Your task to perform on an android device: search for starred emails in the gmail app Image 0: 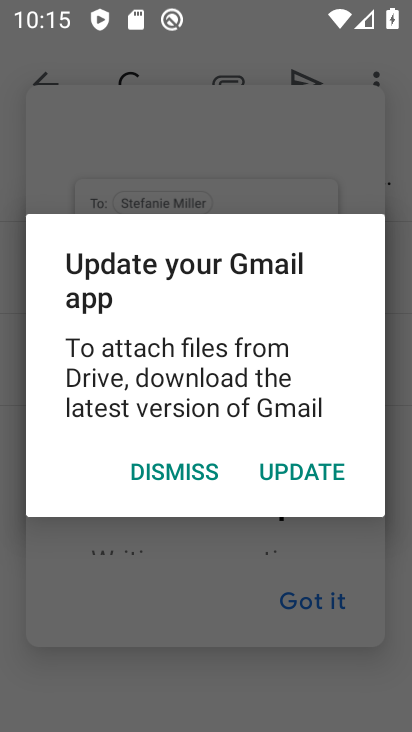
Step 0: click (142, 480)
Your task to perform on an android device: search for starred emails in the gmail app Image 1: 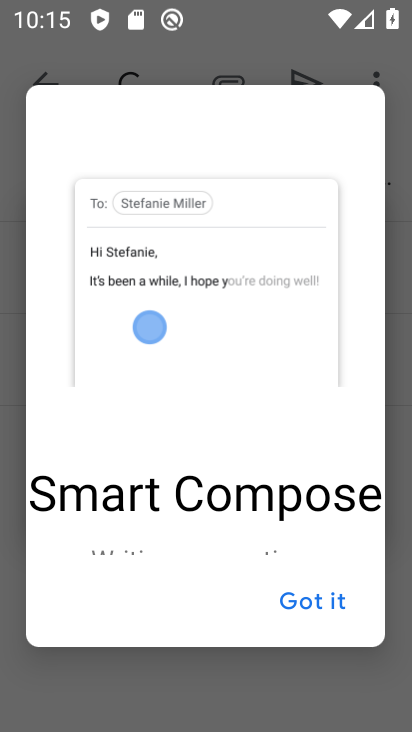
Step 1: click (303, 592)
Your task to perform on an android device: search for starred emails in the gmail app Image 2: 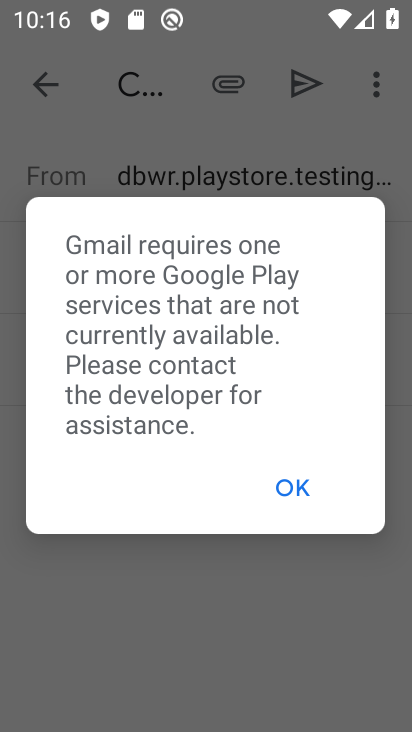
Step 2: press home button
Your task to perform on an android device: search for starred emails in the gmail app Image 3: 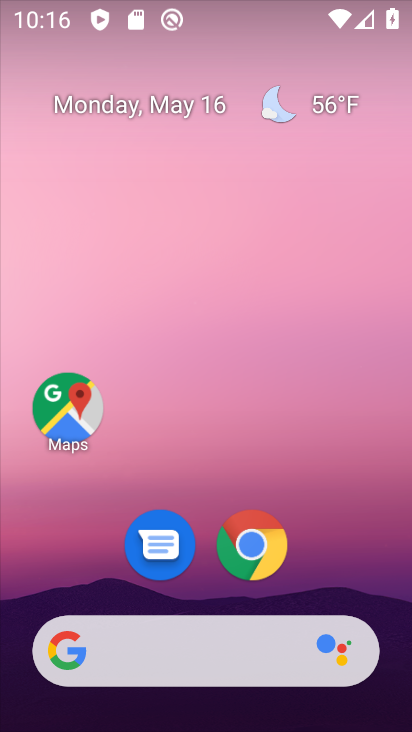
Step 3: drag from (210, 592) to (257, 32)
Your task to perform on an android device: search for starred emails in the gmail app Image 4: 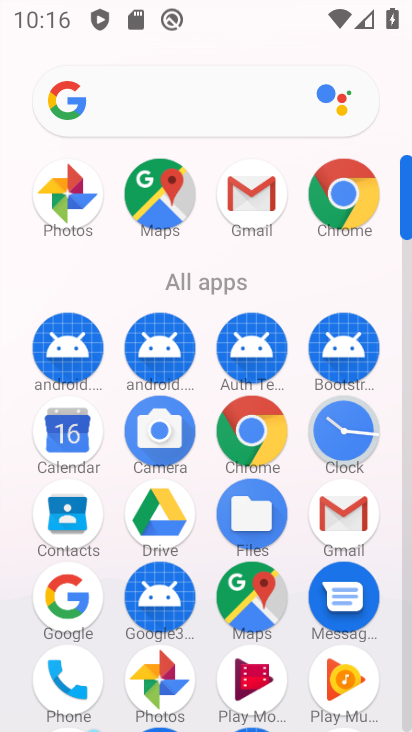
Step 4: click (349, 528)
Your task to perform on an android device: search for starred emails in the gmail app Image 5: 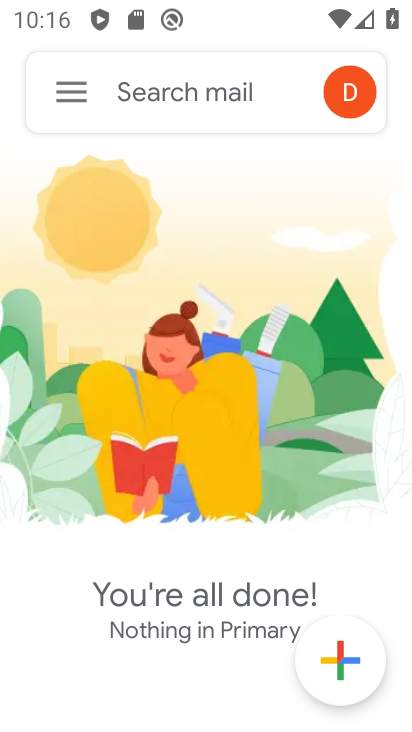
Step 5: click (80, 102)
Your task to perform on an android device: search for starred emails in the gmail app Image 6: 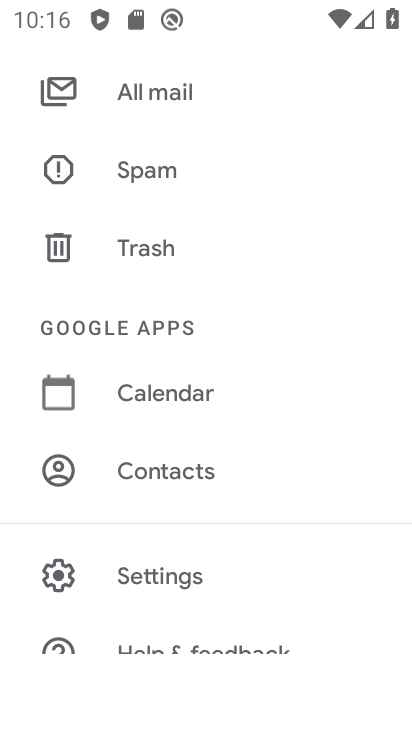
Step 6: drag from (166, 224) to (141, 664)
Your task to perform on an android device: search for starred emails in the gmail app Image 7: 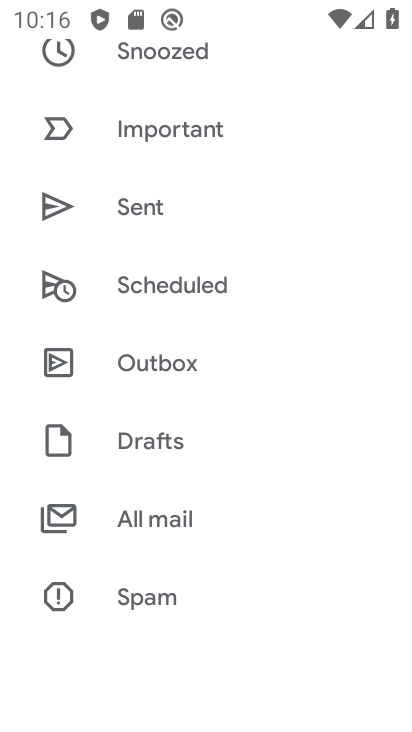
Step 7: drag from (230, 253) to (199, 606)
Your task to perform on an android device: search for starred emails in the gmail app Image 8: 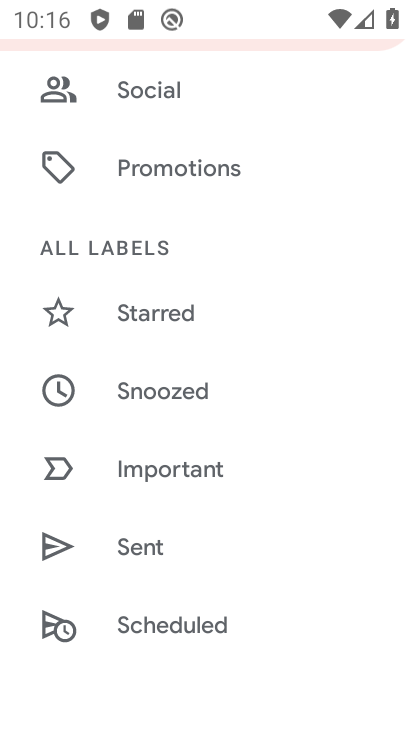
Step 8: click (153, 317)
Your task to perform on an android device: search for starred emails in the gmail app Image 9: 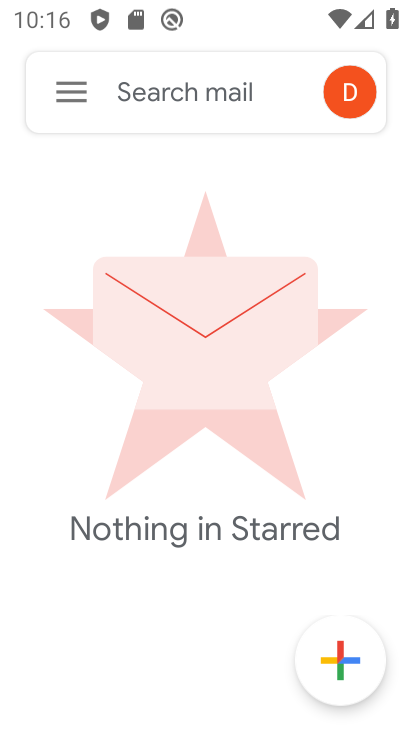
Step 9: task complete